Your task to perform on an android device: Open the calendar and show me this week's events? Image 0: 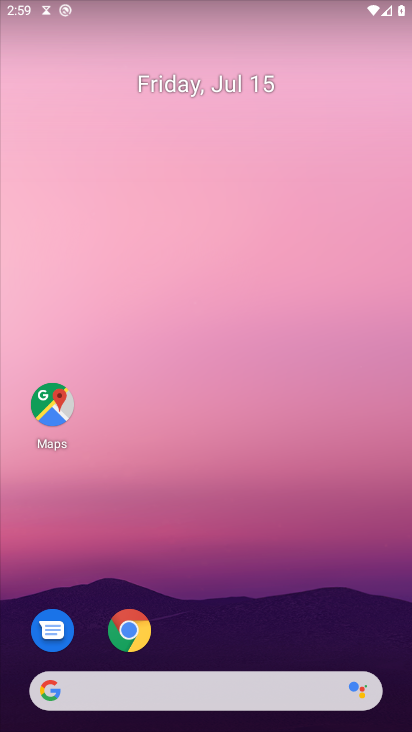
Step 0: press home button
Your task to perform on an android device: Open the calendar and show me this week's events? Image 1: 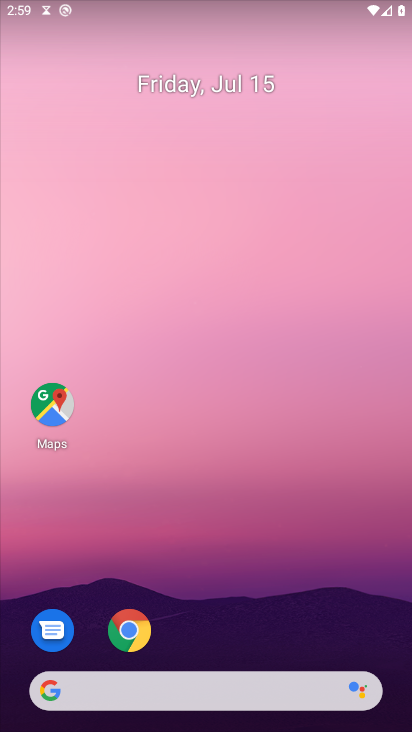
Step 1: drag from (263, 644) to (306, 17)
Your task to perform on an android device: Open the calendar and show me this week's events? Image 2: 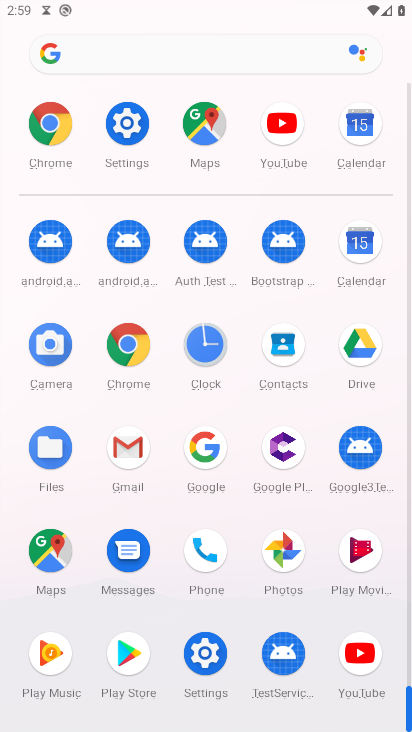
Step 2: click (358, 237)
Your task to perform on an android device: Open the calendar and show me this week's events? Image 3: 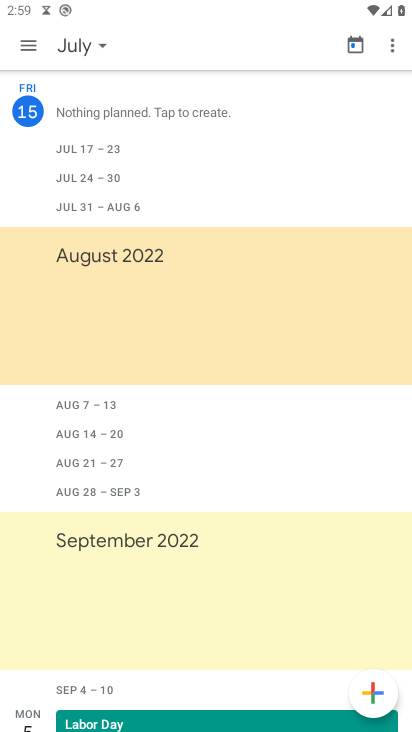
Step 3: click (23, 50)
Your task to perform on an android device: Open the calendar and show me this week's events? Image 4: 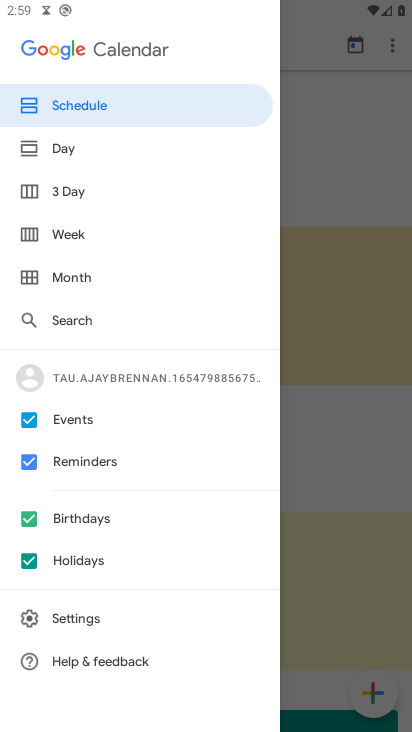
Step 4: click (68, 230)
Your task to perform on an android device: Open the calendar and show me this week's events? Image 5: 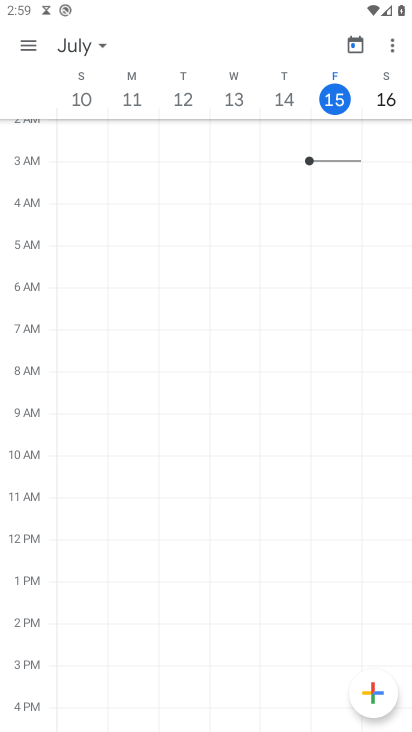
Step 5: task complete